Your task to perform on an android device: Open calendar and show me the third week of next month Image 0: 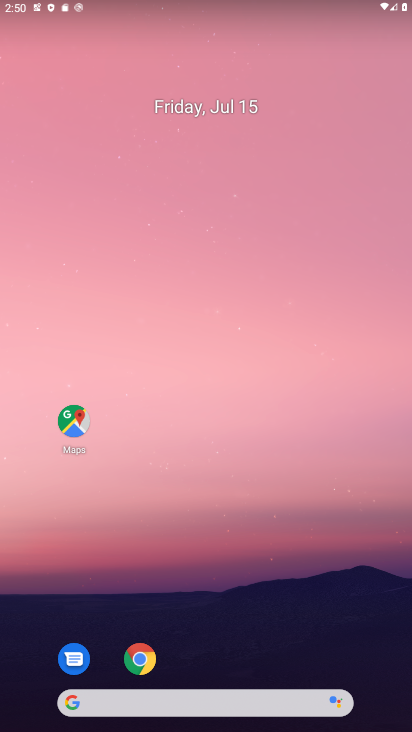
Step 0: drag from (237, 683) to (268, 176)
Your task to perform on an android device: Open calendar and show me the third week of next month Image 1: 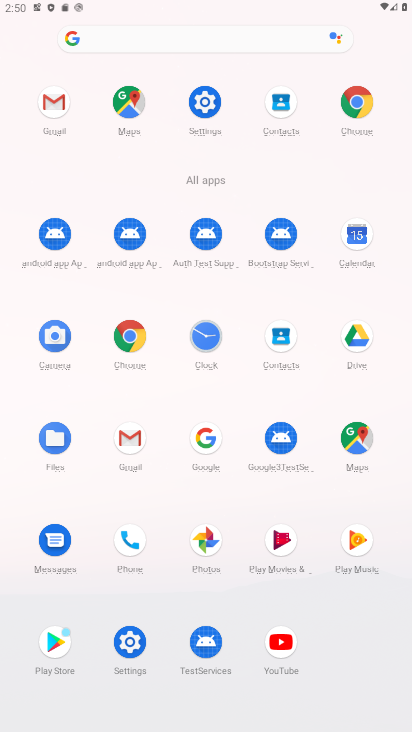
Step 1: click (354, 237)
Your task to perform on an android device: Open calendar and show me the third week of next month Image 2: 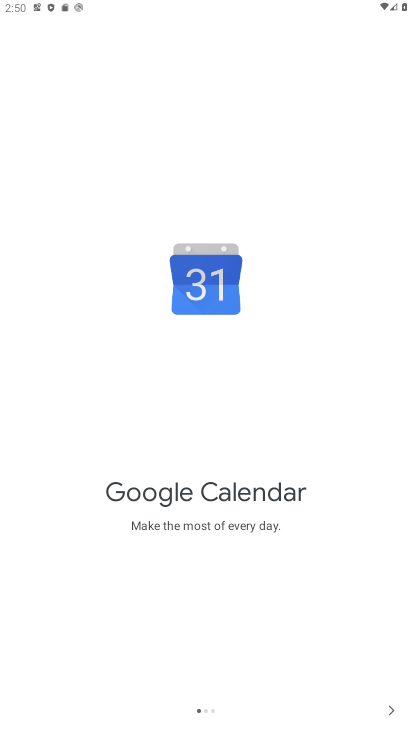
Step 2: click (388, 715)
Your task to perform on an android device: Open calendar and show me the third week of next month Image 3: 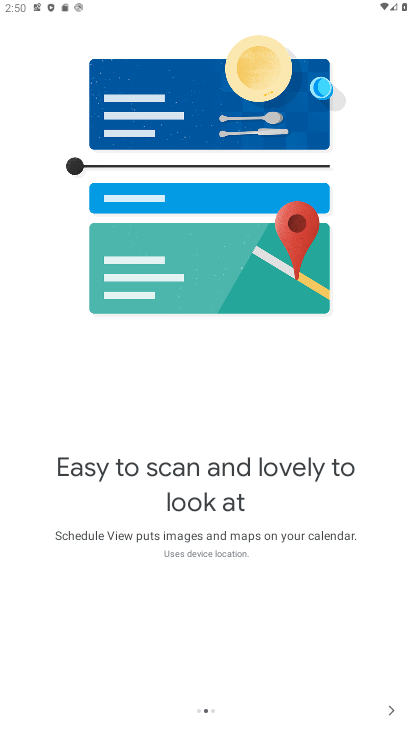
Step 3: click (388, 715)
Your task to perform on an android device: Open calendar and show me the third week of next month Image 4: 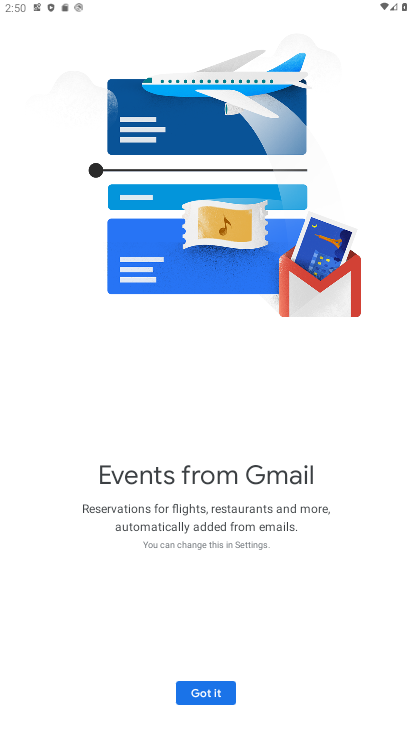
Step 4: click (189, 695)
Your task to perform on an android device: Open calendar and show me the third week of next month Image 5: 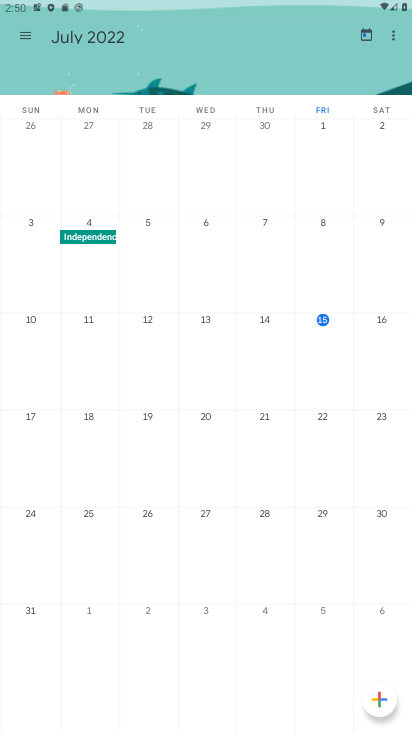
Step 5: drag from (378, 386) to (7, 382)
Your task to perform on an android device: Open calendar and show me the third week of next month Image 6: 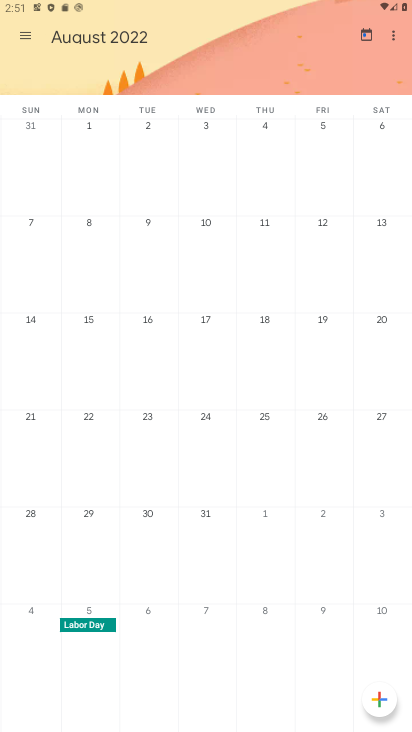
Step 6: click (28, 320)
Your task to perform on an android device: Open calendar and show me the third week of next month Image 7: 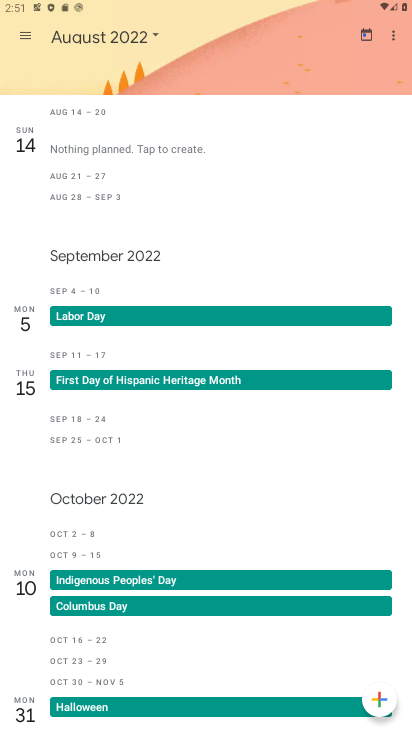
Step 7: task complete